Your task to perform on an android device: Open Yahoo.com Image 0: 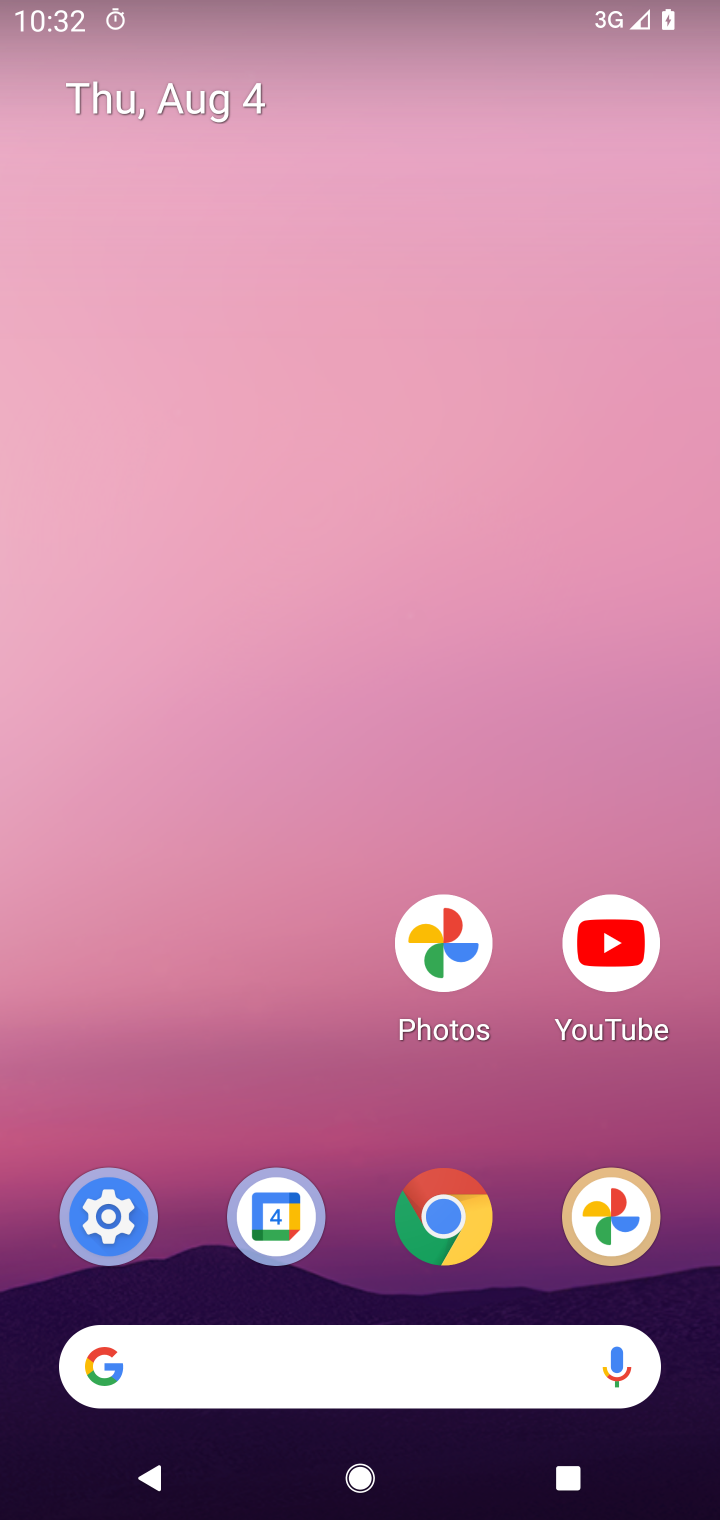
Step 0: click (435, 1201)
Your task to perform on an android device: Open Yahoo.com Image 1: 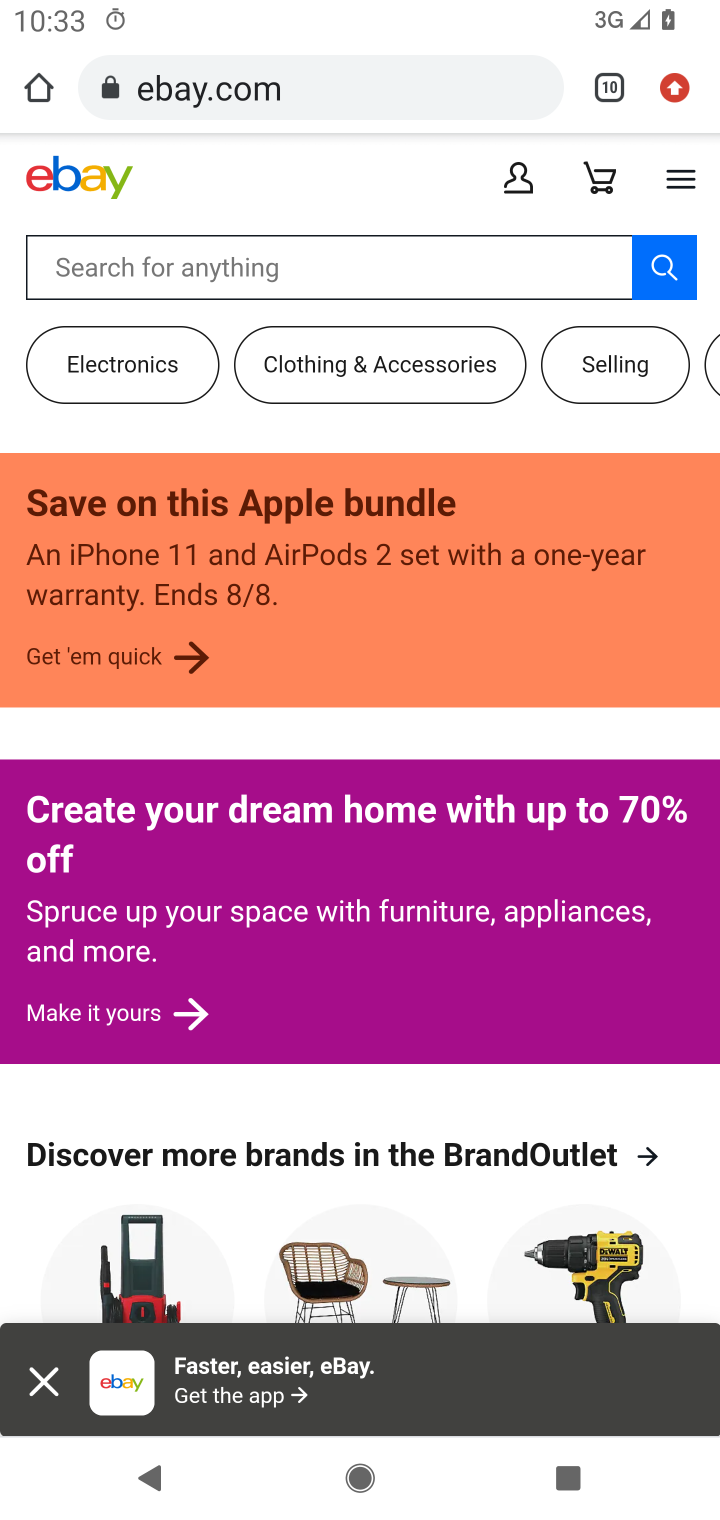
Step 1: drag from (674, 100) to (490, 302)
Your task to perform on an android device: Open Yahoo.com Image 2: 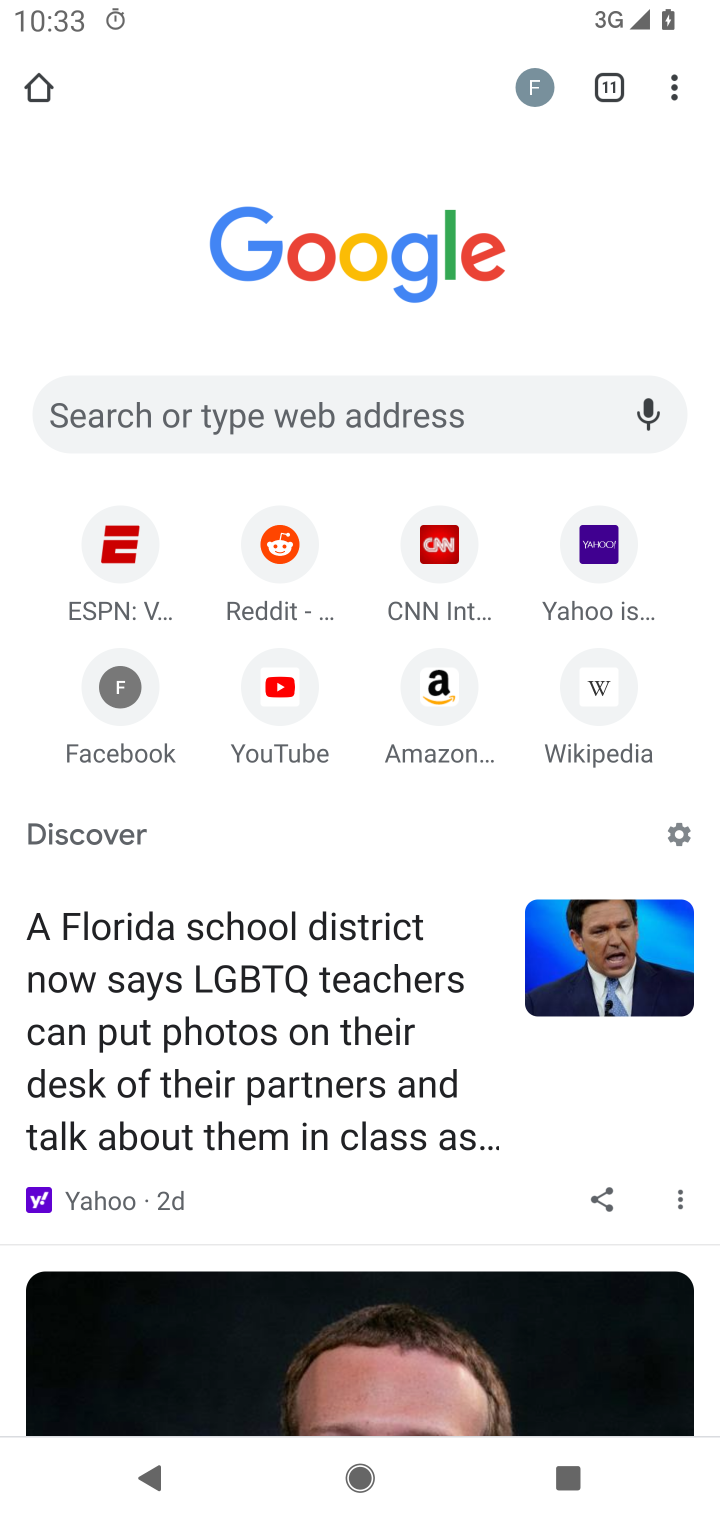
Step 2: click (603, 555)
Your task to perform on an android device: Open Yahoo.com Image 3: 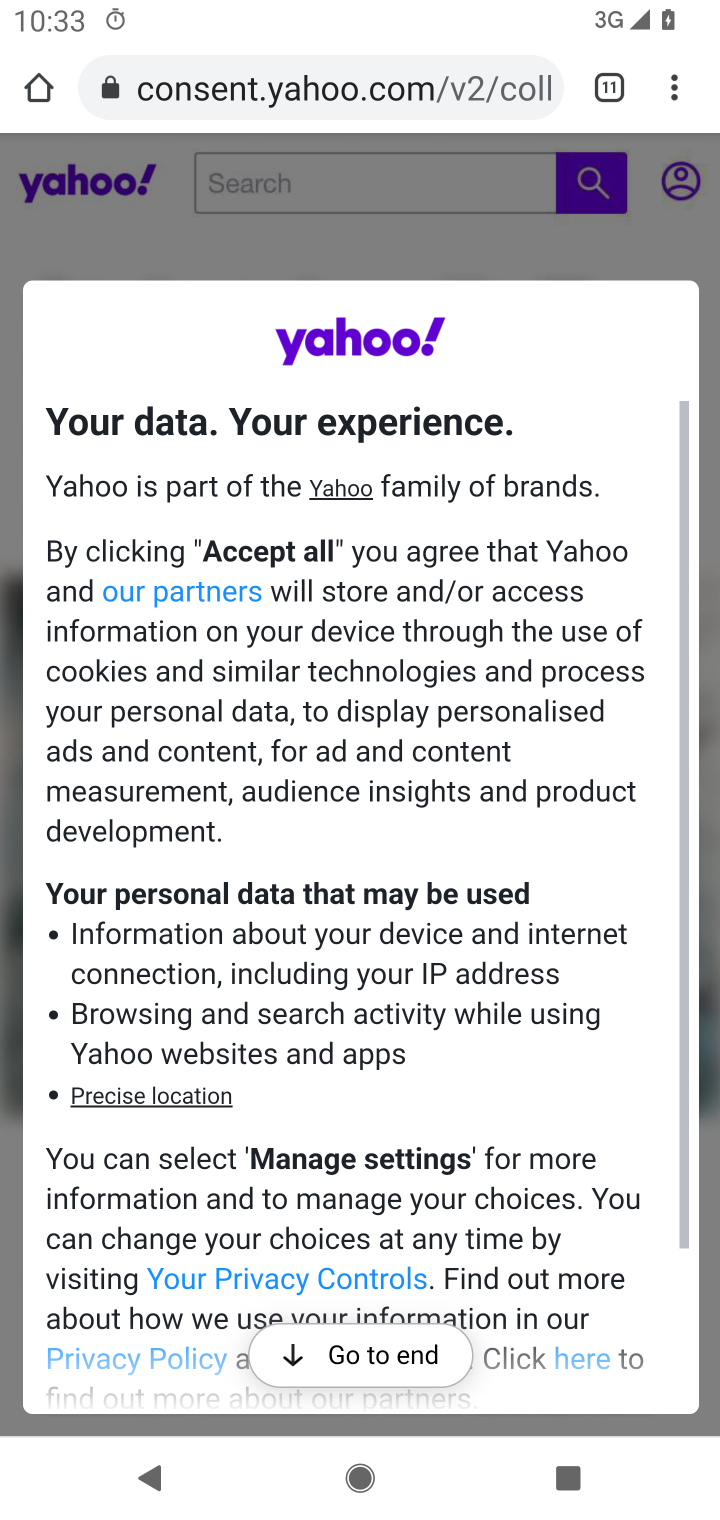
Step 3: task complete